Your task to perform on an android device: clear history in the chrome app Image 0: 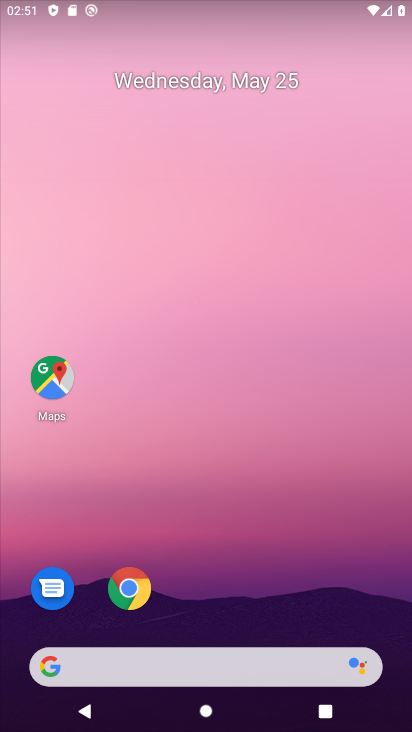
Step 0: press home button
Your task to perform on an android device: clear history in the chrome app Image 1: 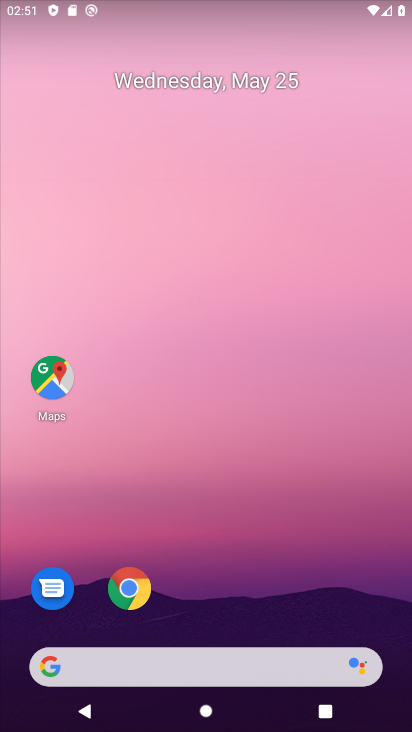
Step 1: click (128, 604)
Your task to perform on an android device: clear history in the chrome app Image 2: 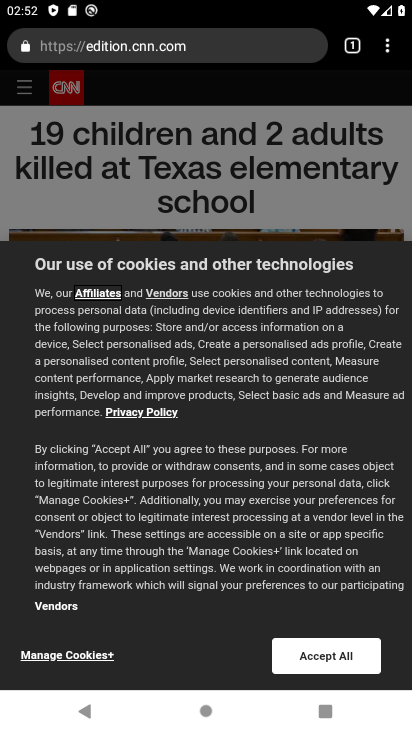
Step 2: drag from (383, 42) to (235, 513)
Your task to perform on an android device: clear history in the chrome app Image 3: 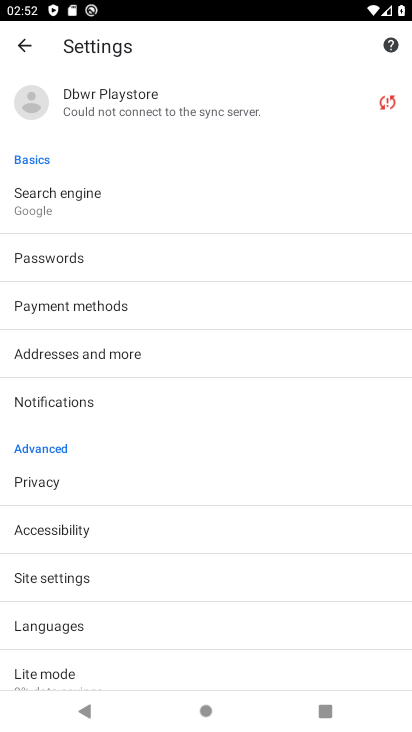
Step 3: drag from (122, 657) to (175, 457)
Your task to perform on an android device: clear history in the chrome app Image 4: 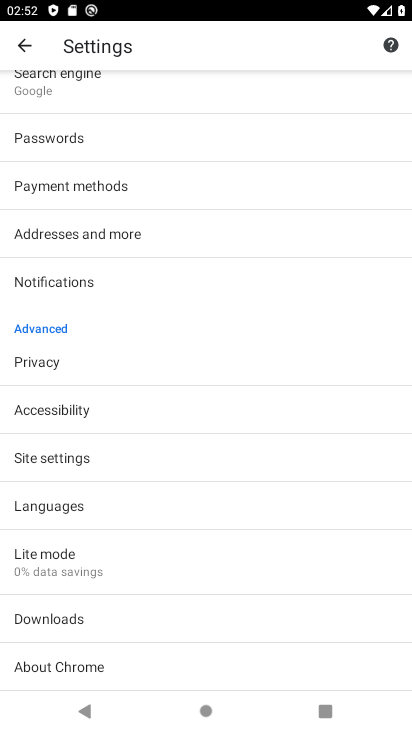
Step 4: click (31, 44)
Your task to perform on an android device: clear history in the chrome app Image 5: 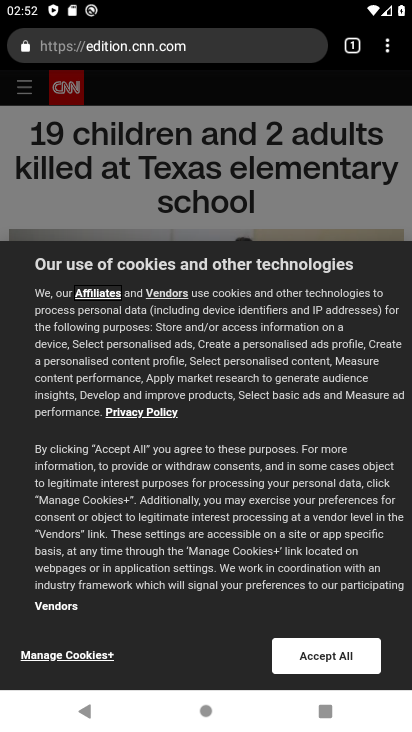
Step 5: drag from (395, 39) to (229, 257)
Your task to perform on an android device: clear history in the chrome app Image 6: 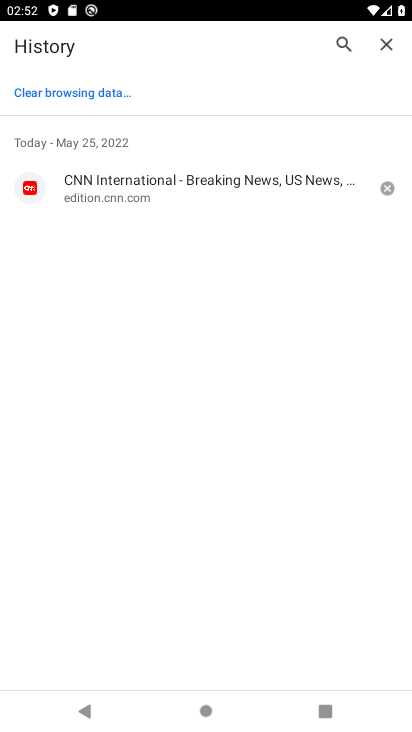
Step 6: click (391, 185)
Your task to perform on an android device: clear history in the chrome app Image 7: 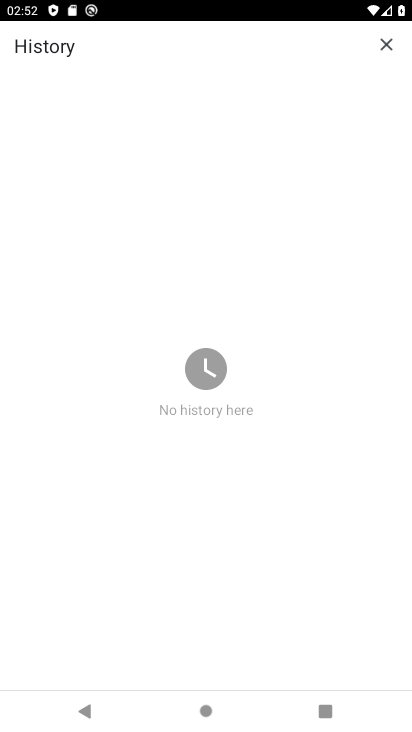
Step 7: task complete